Your task to perform on an android device: Open Chrome and go to the settings page Image 0: 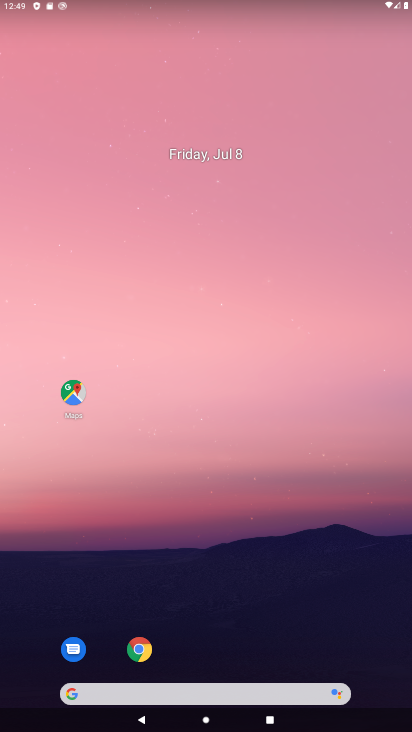
Step 0: click (125, 650)
Your task to perform on an android device: Open Chrome and go to the settings page Image 1: 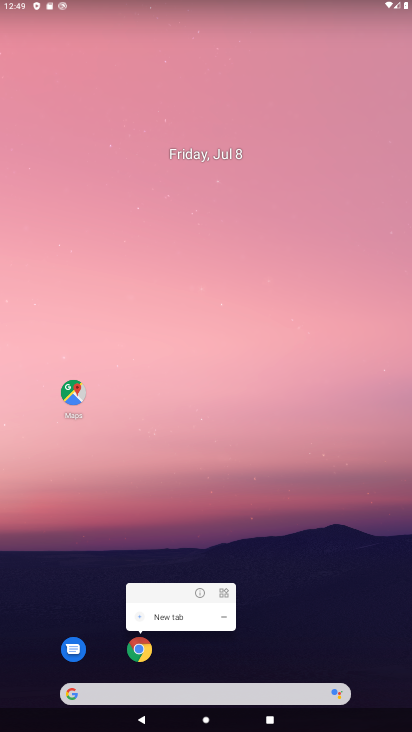
Step 1: click (138, 656)
Your task to perform on an android device: Open Chrome and go to the settings page Image 2: 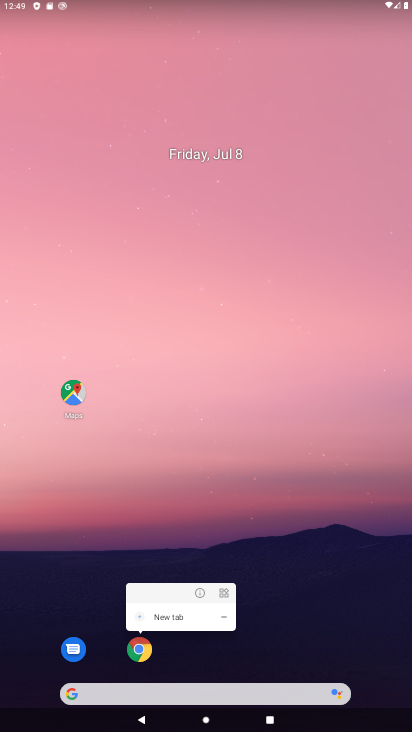
Step 2: click (138, 647)
Your task to perform on an android device: Open Chrome and go to the settings page Image 3: 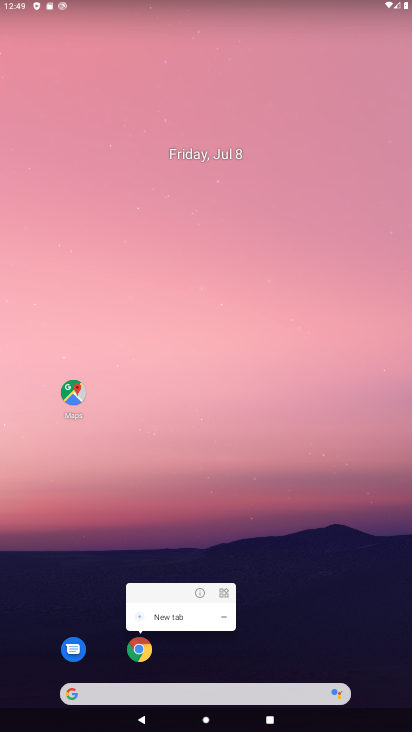
Step 3: click (137, 647)
Your task to perform on an android device: Open Chrome and go to the settings page Image 4: 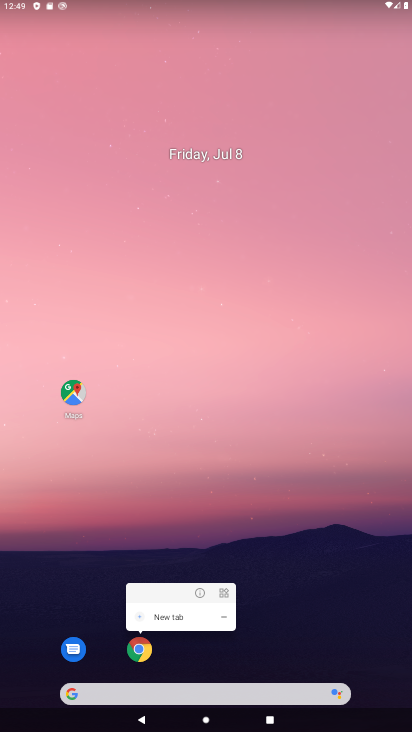
Step 4: click (135, 643)
Your task to perform on an android device: Open Chrome and go to the settings page Image 5: 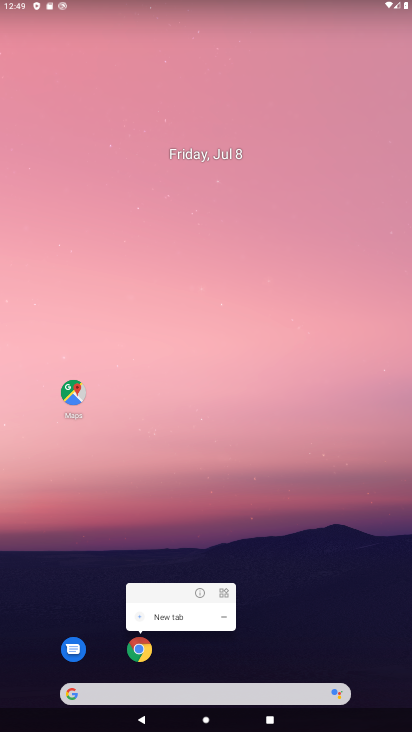
Step 5: click (133, 652)
Your task to perform on an android device: Open Chrome and go to the settings page Image 6: 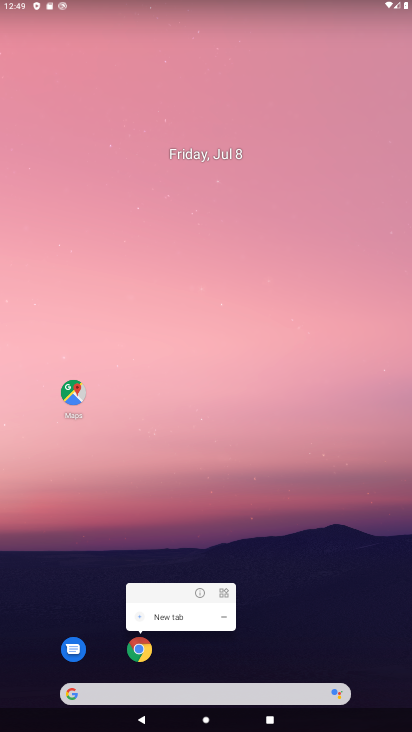
Step 6: click (148, 650)
Your task to perform on an android device: Open Chrome and go to the settings page Image 7: 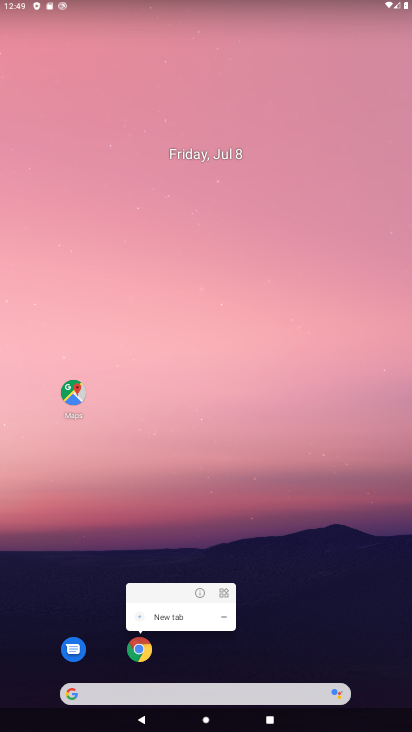
Step 7: task complete